Your task to perform on an android device: Open Chrome and go to the settings page Image 0: 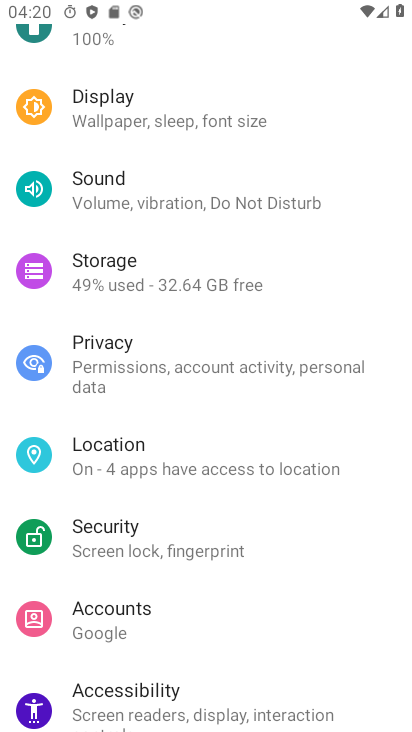
Step 0: press home button
Your task to perform on an android device: Open Chrome and go to the settings page Image 1: 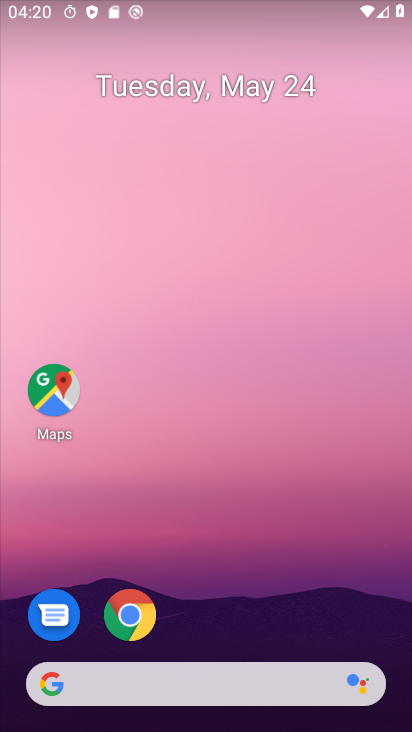
Step 1: click (140, 608)
Your task to perform on an android device: Open Chrome and go to the settings page Image 2: 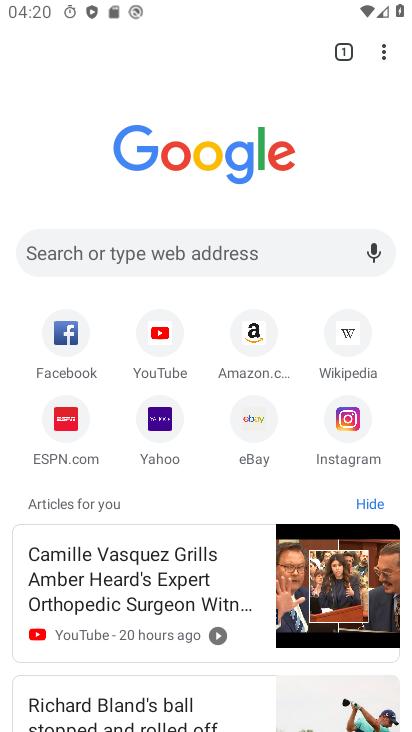
Step 2: click (385, 43)
Your task to perform on an android device: Open Chrome and go to the settings page Image 3: 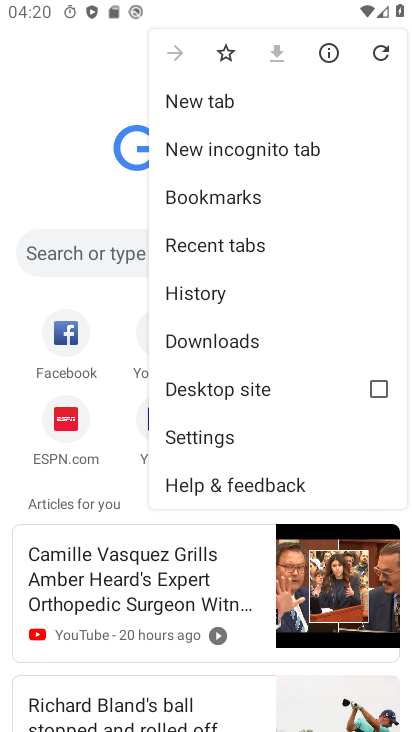
Step 3: click (235, 435)
Your task to perform on an android device: Open Chrome and go to the settings page Image 4: 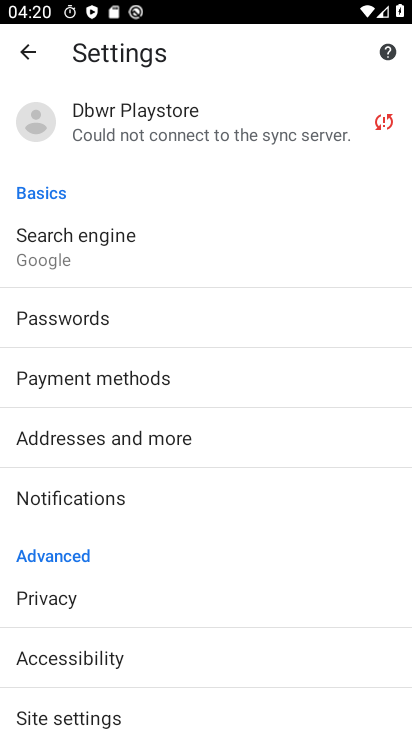
Step 4: task complete